Your task to perform on an android device: Go to CNN.com Image 0: 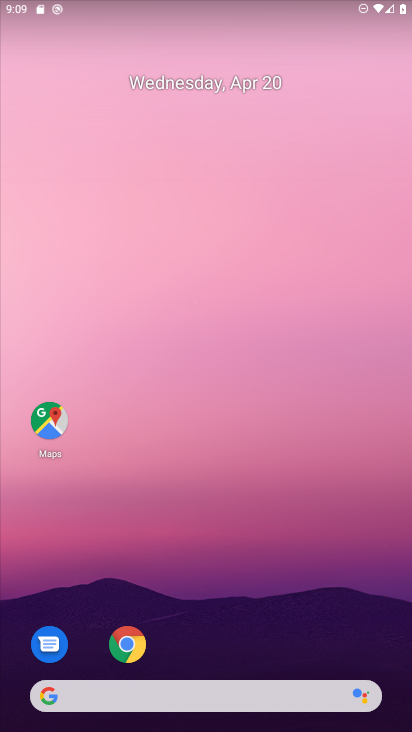
Step 0: drag from (354, 622) to (216, 56)
Your task to perform on an android device: Go to CNN.com Image 1: 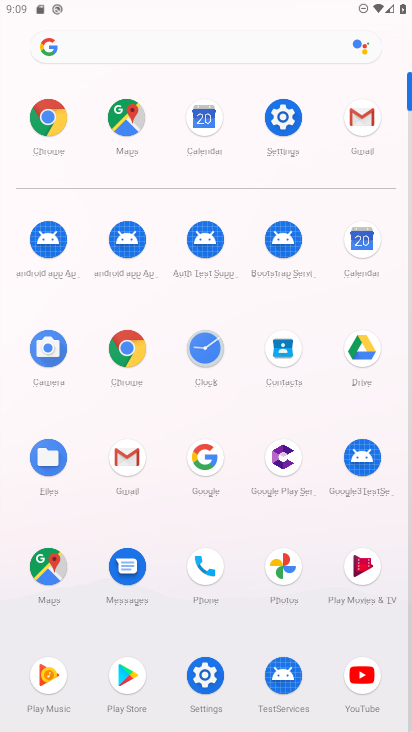
Step 1: click (126, 352)
Your task to perform on an android device: Go to CNN.com Image 2: 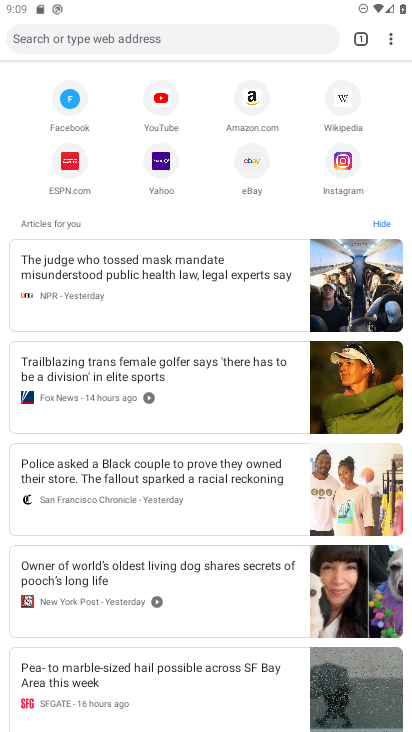
Step 2: click (141, 38)
Your task to perform on an android device: Go to CNN.com Image 3: 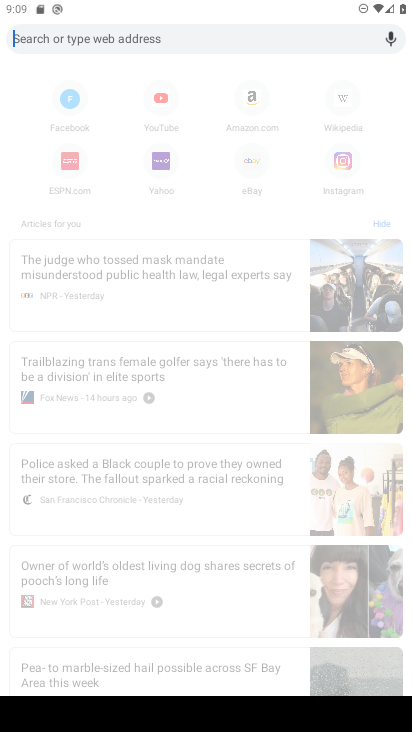
Step 3: type "cnn.com"
Your task to perform on an android device: Go to CNN.com Image 4: 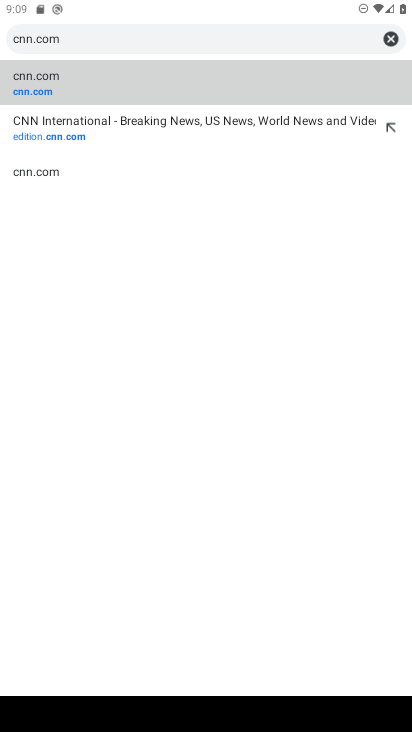
Step 4: click (229, 71)
Your task to perform on an android device: Go to CNN.com Image 5: 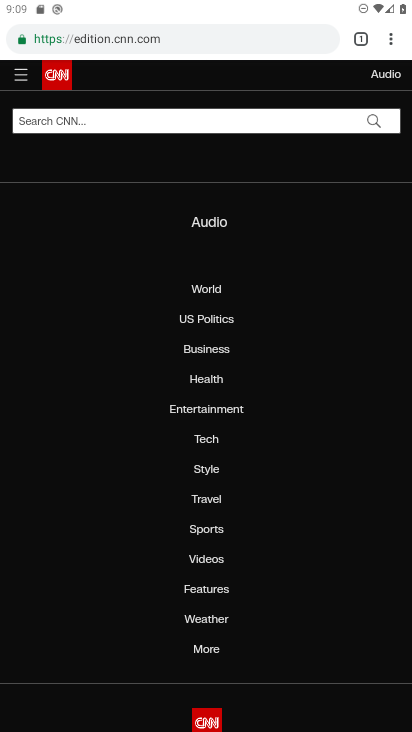
Step 5: task complete